Your task to perform on an android device: Search for razer nari on costco, select the first entry, and add it to the cart. Image 0: 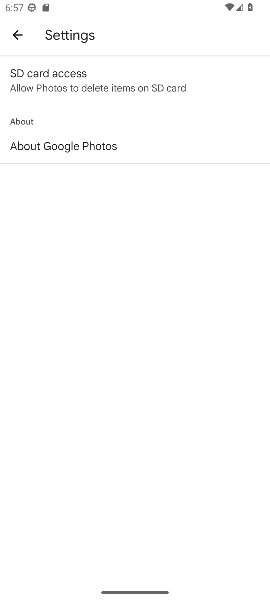
Step 0: press home button
Your task to perform on an android device: Search for razer nari on costco, select the first entry, and add it to the cart. Image 1: 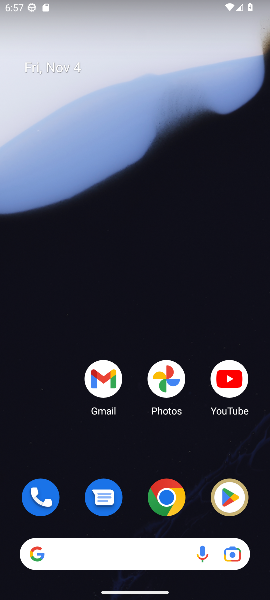
Step 1: click (166, 496)
Your task to perform on an android device: Search for razer nari on costco, select the first entry, and add it to the cart. Image 2: 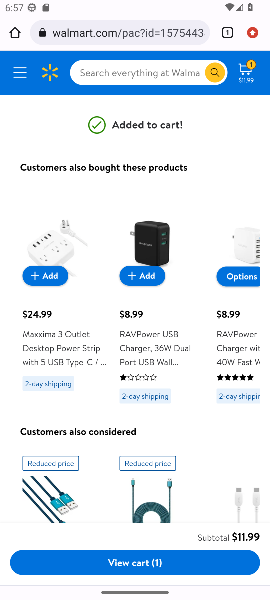
Step 2: click (132, 37)
Your task to perform on an android device: Search for razer nari on costco, select the first entry, and add it to the cart. Image 3: 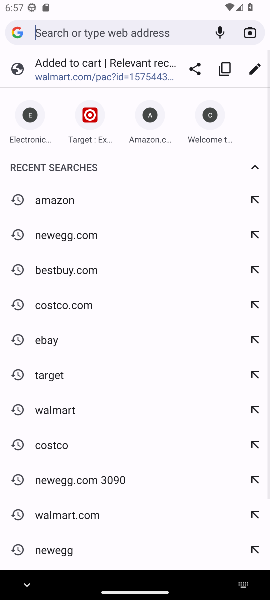
Step 3: click (62, 306)
Your task to perform on an android device: Search for razer nari on costco, select the first entry, and add it to the cart. Image 4: 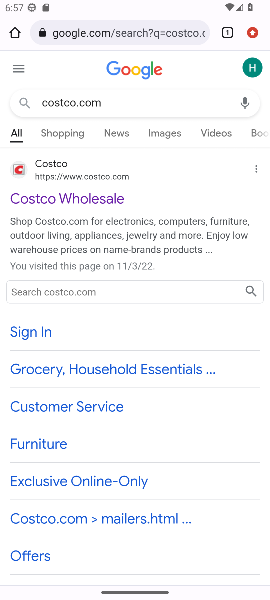
Step 4: click (71, 200)
Your task to perform on an android device: Search for razer nari on costco, select the first entry, and add it to the cart. Image 5: 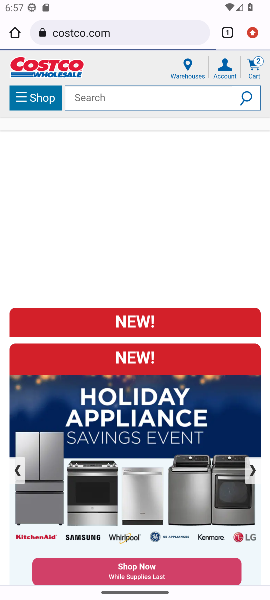
Step 5: click (107, 101)
Your task to perform on an android device: Search for razer nari on costco, select the first entry, and add it to the cart. Image 6: 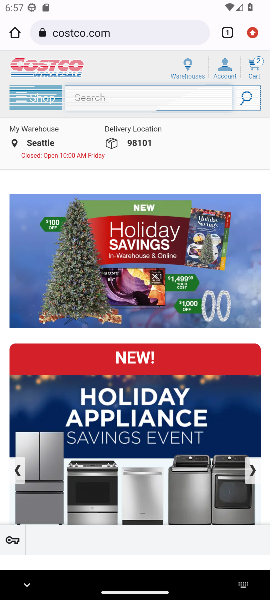
Step 6: type "razer nari"
Your task to perform on an android device: Search for razer nari on costco, select the first entry, and add it to the cart. Image 7: 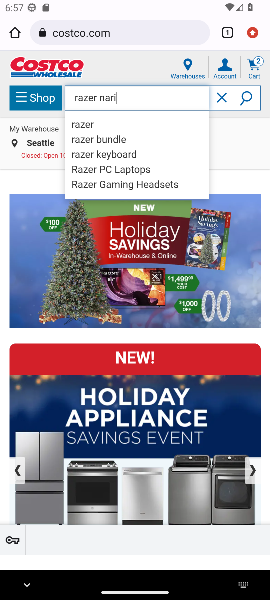
Step 7: click (240, 100)
Your task to perform on an android device: Search for razer nari on costco, select the first entry, and add it to the cart. Image 8: 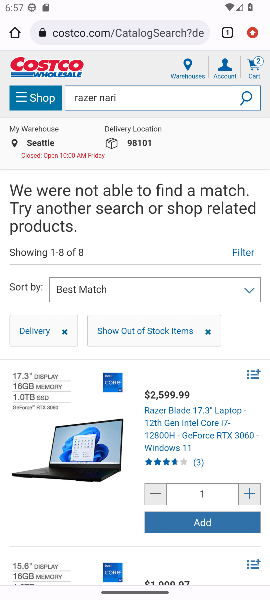
Step 8: task complete